Your task to perform on an android device: install app "Google Keep" Image 0: 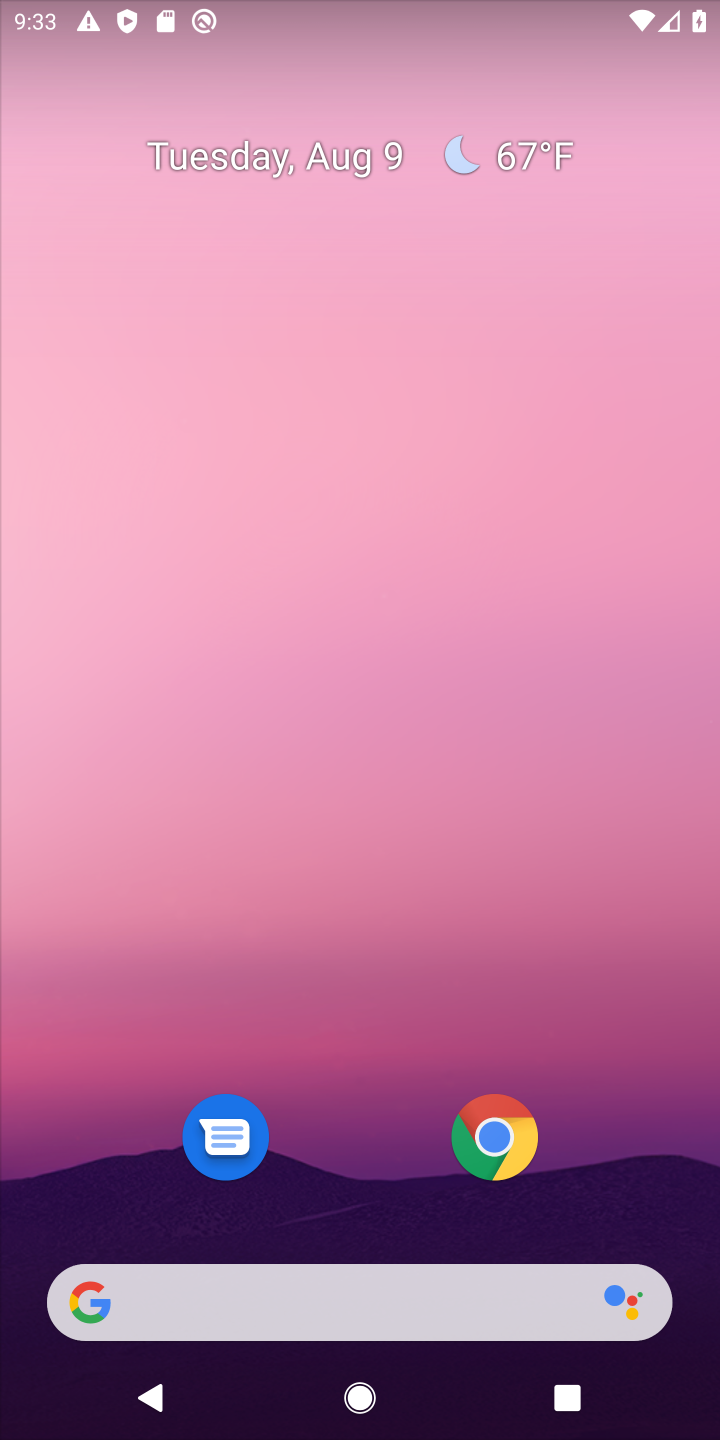
Step 0: drag from (681, 1237) to (479, 74)
Your task to perform on an android device: install app "Google Keep" Image 1: 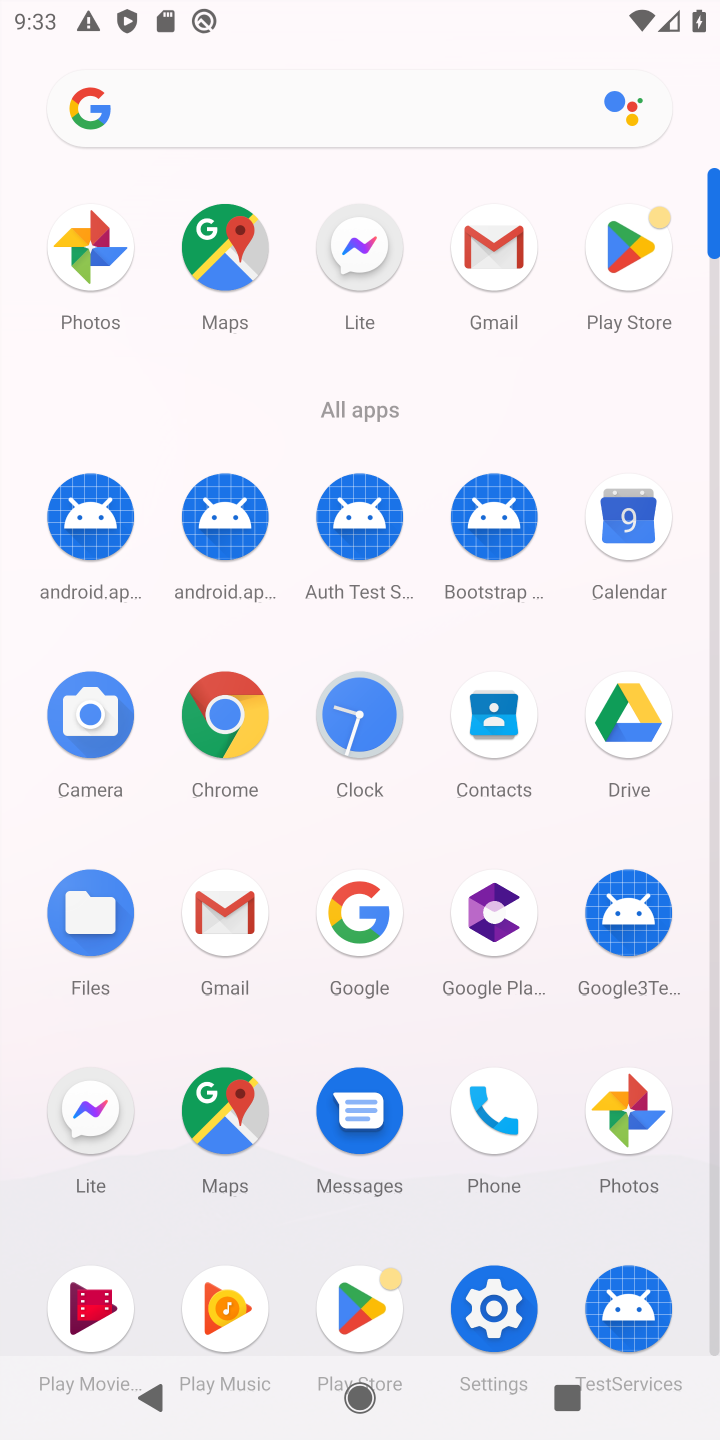
Step 1: click (345, 1305)
Your task to perform on an android device: install app "Google Keep" Image 2: 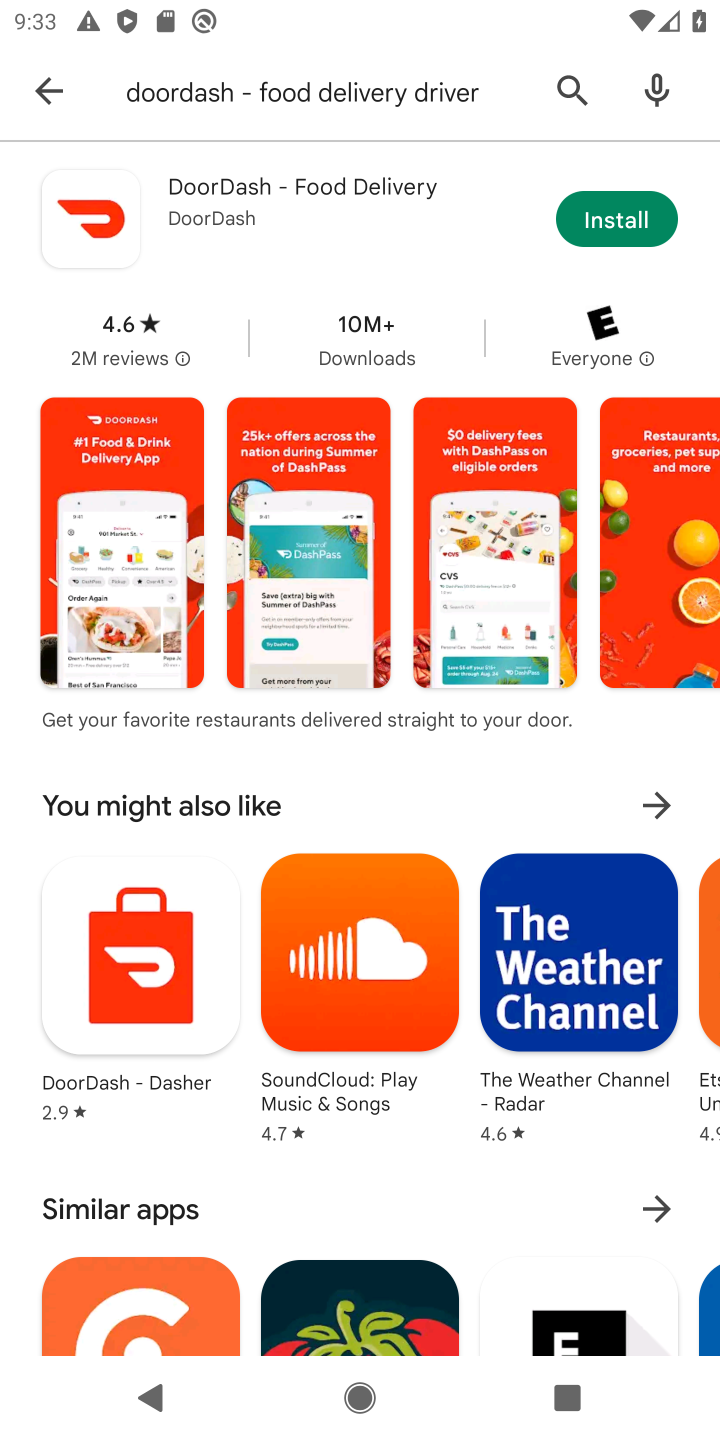
Step 2: press back button
Your task to perform on an android device: install app "Google Keep" Image 3: 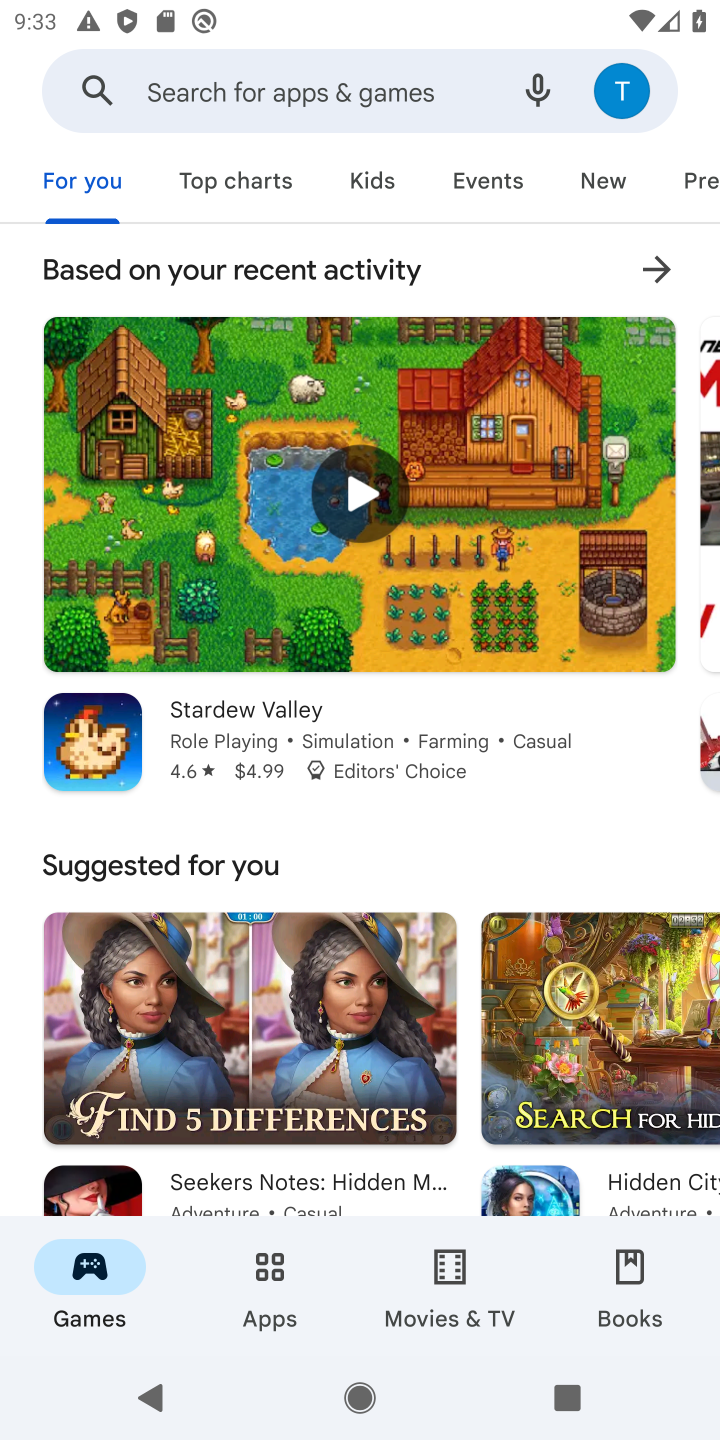
Step 3: click (206, 79)
Your task to perform on an android device: install app "Google Keep" Image 4: 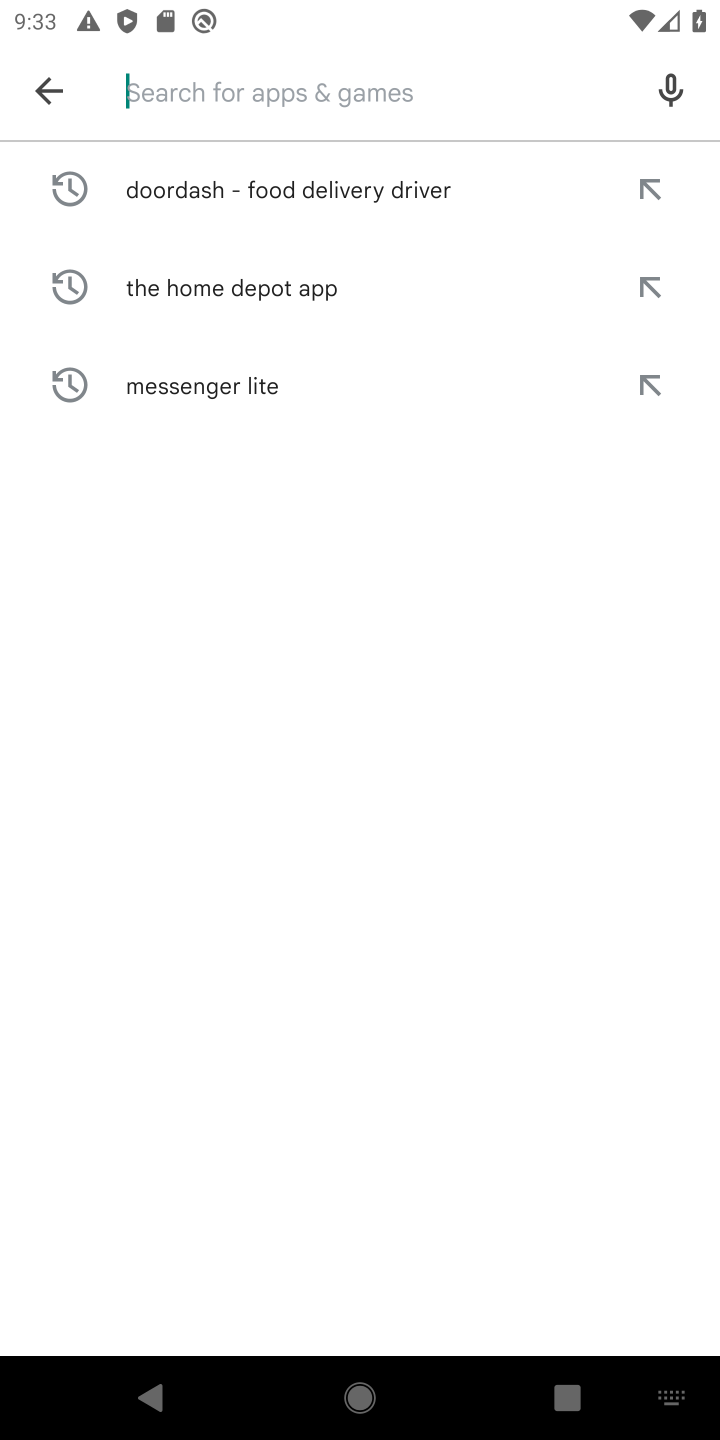
Step 4: type "Google Keep"
Your task to perform on an android device: install app "Google Keep" Image 5: 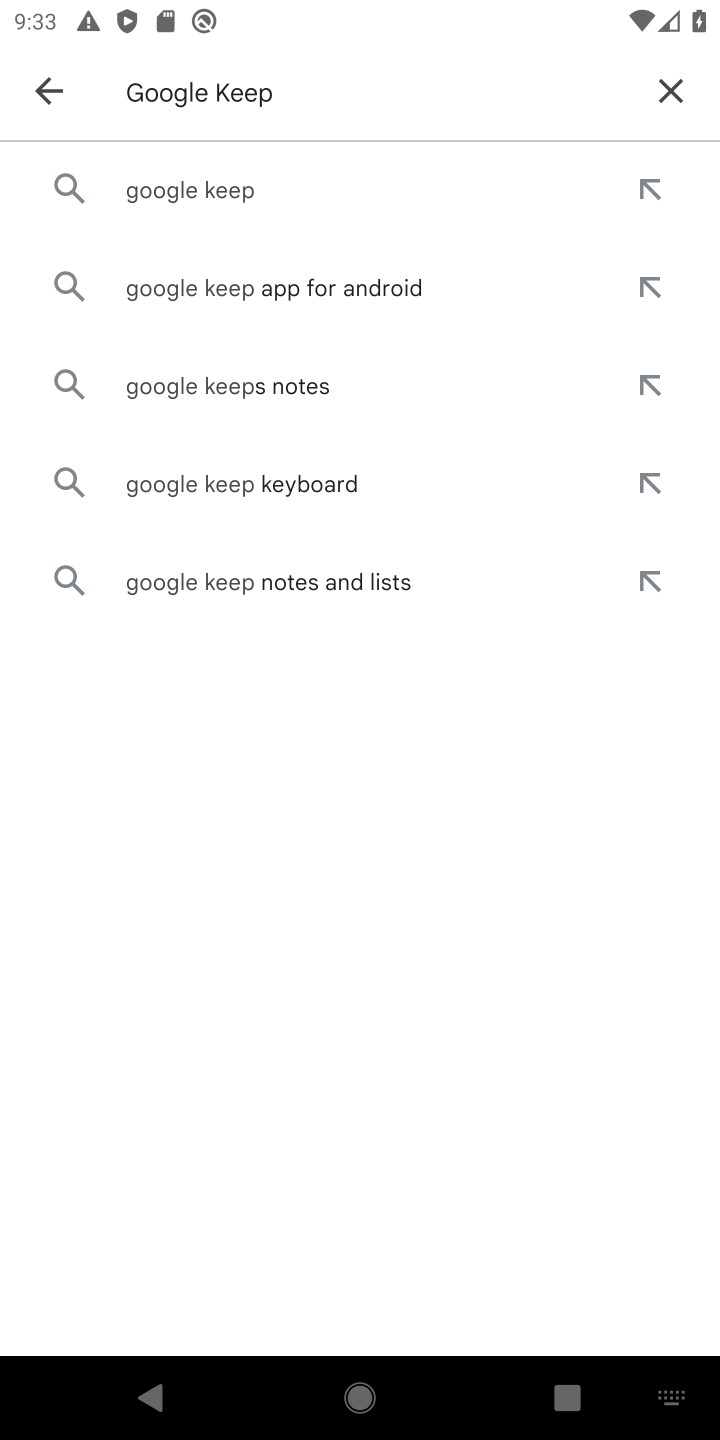
Step 5: click (247, 199)
Your task to perform on an android device: install app "Google Keep" Image 6: 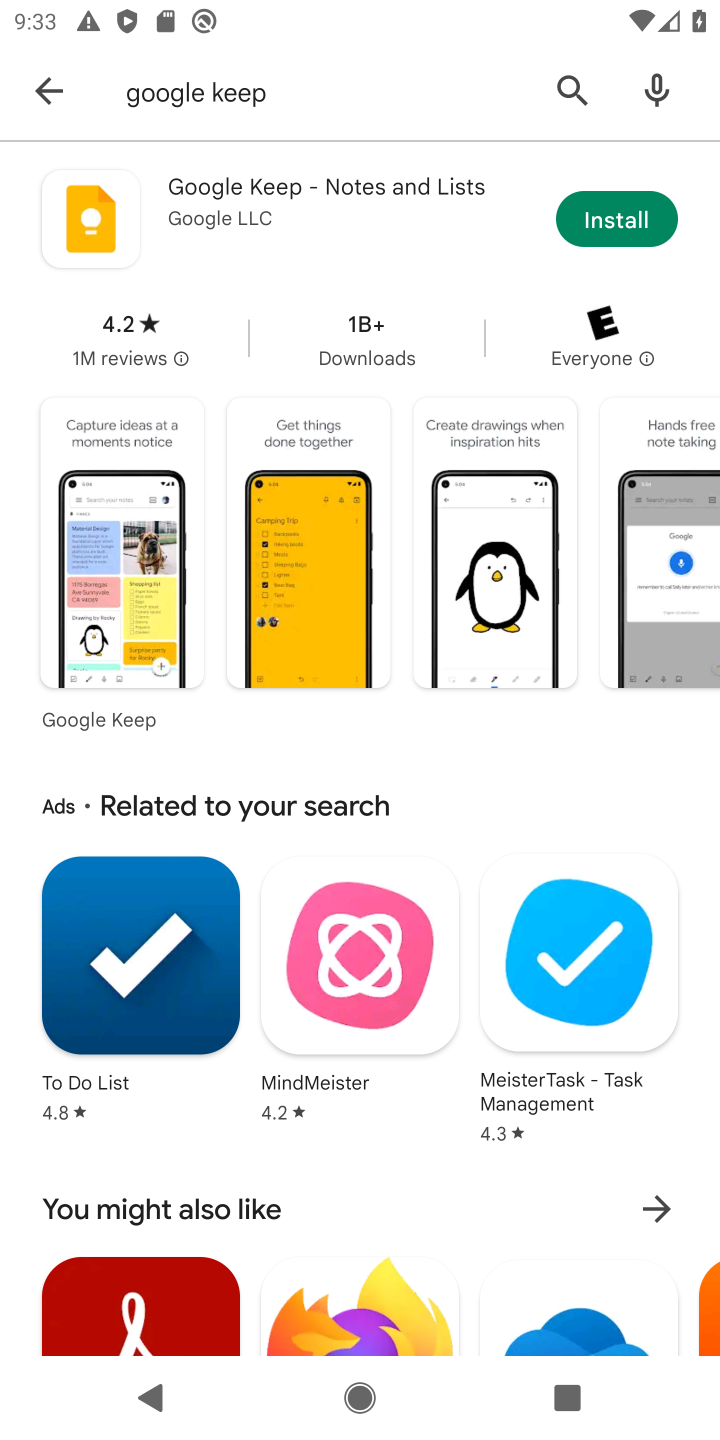
Step 6: click (617, 226)
Your task to perform on an android device: install app "Google Keep" Image 7: 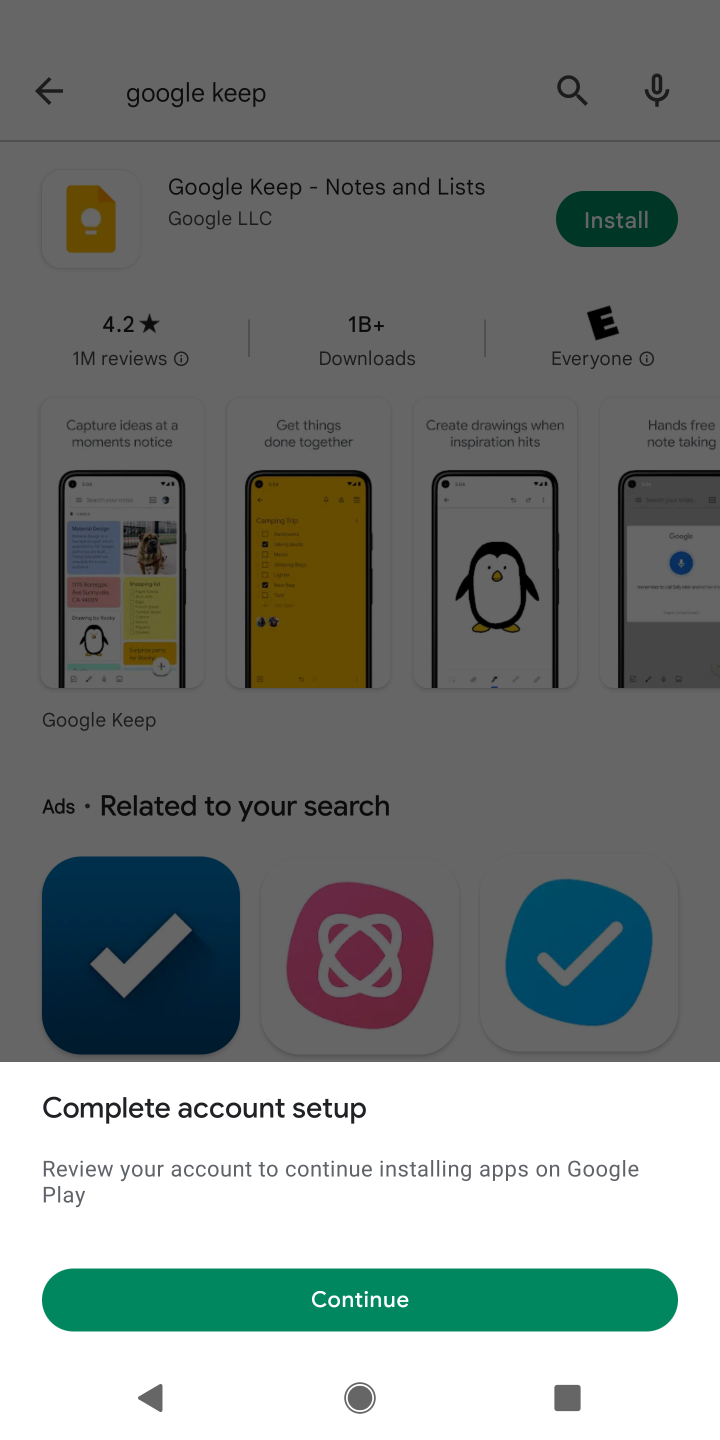
Step 7: click (337, 1293)
Your task to perform on an android device: install app "Google Keep" Image 8: 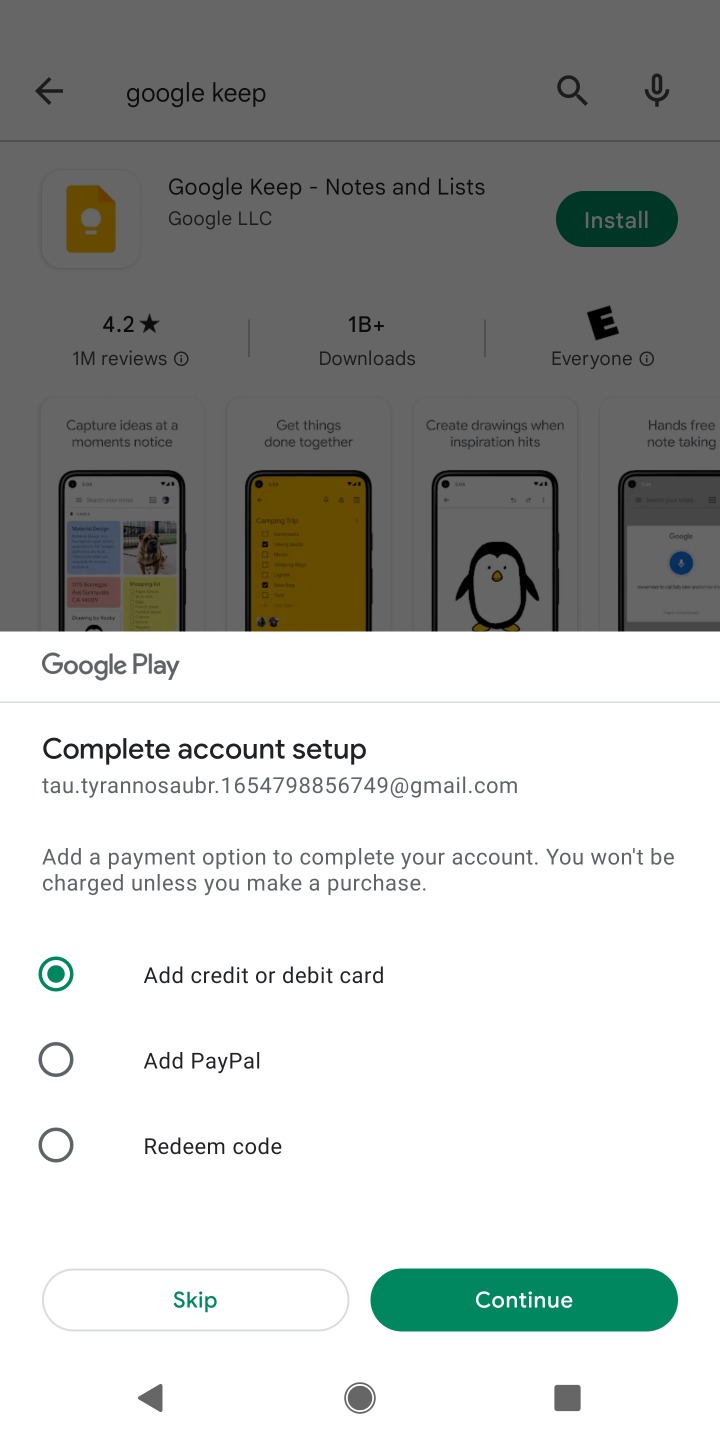
Step 8: click (163, 1295)
Your task to perform on an android device: install app "Google Keep" Image 9: 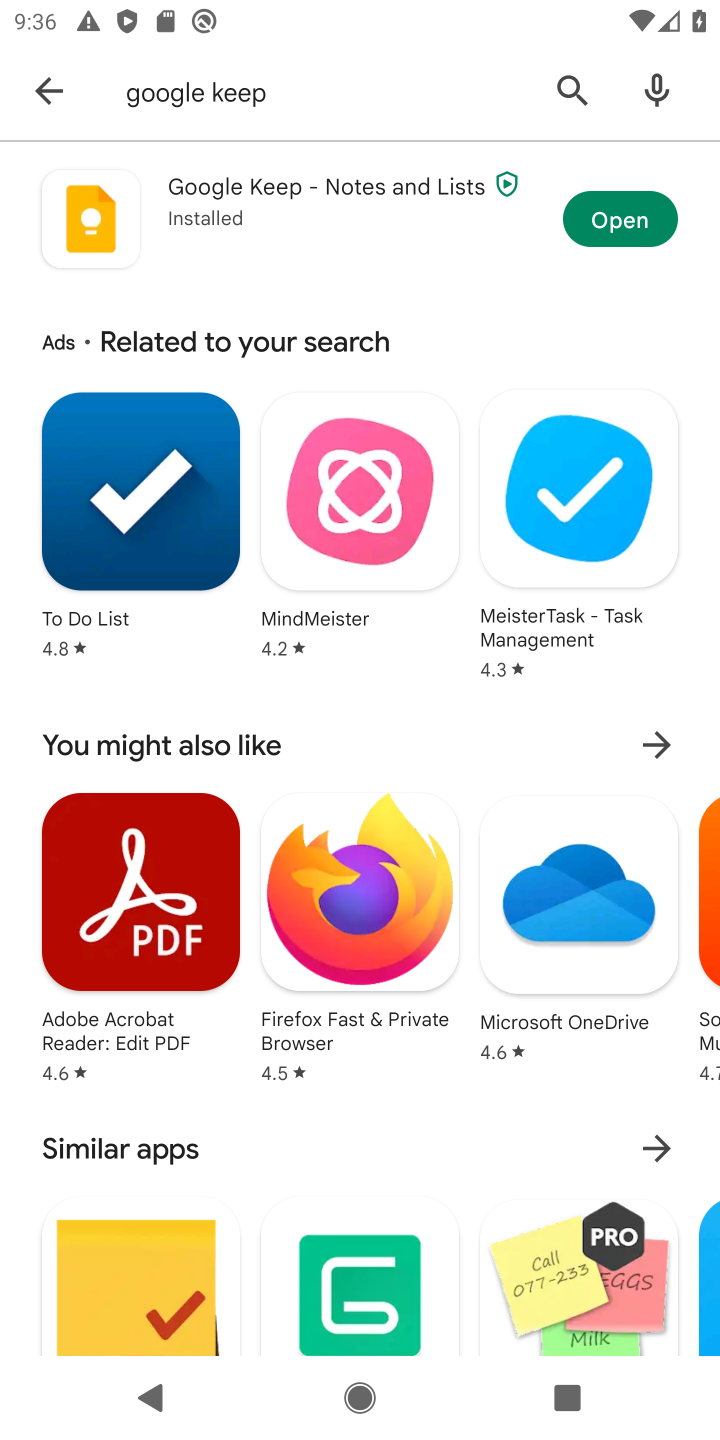
Step 9: task complete